Your task to perform on an android device: Toggle the flashlight Image 0: 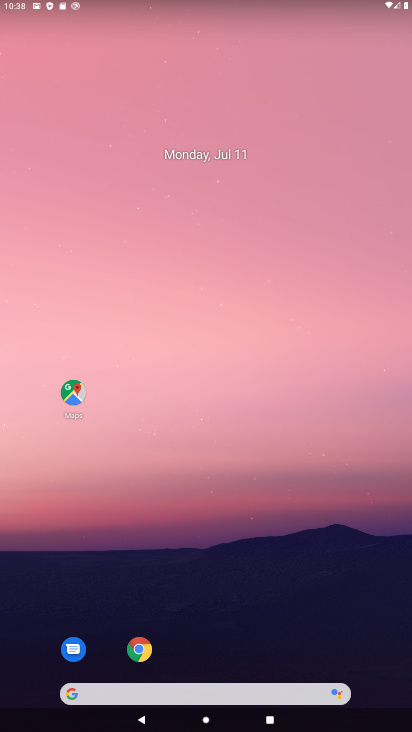
Step 0: drag from (189, 530) to (203, 123)
Your task to perform on an android device: Toggle the flashlight Image 1: 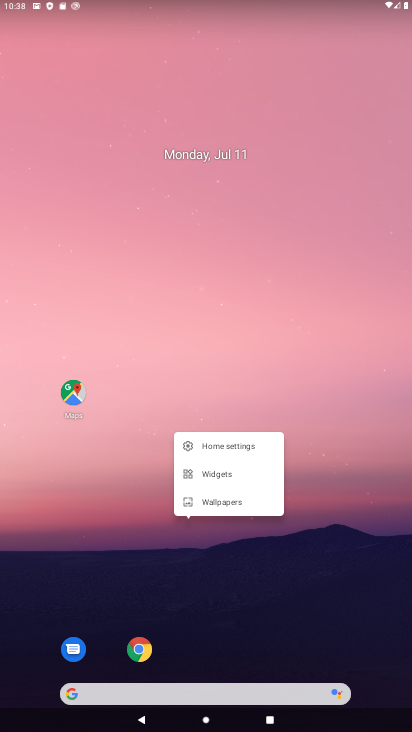
Step 1: click (277, 543)
Your task to perform on an android device: Toggle the flashlight Image 2: 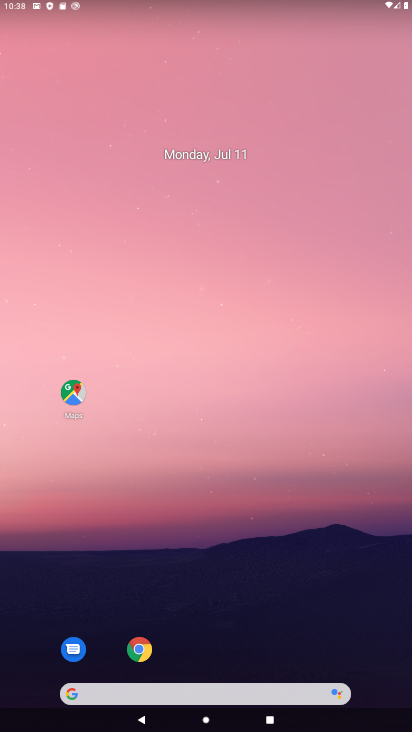
Step 2: drag from (277, 543) to (283, 1)
Your task to perform on an android device: Toggle the flashlight Image 3: 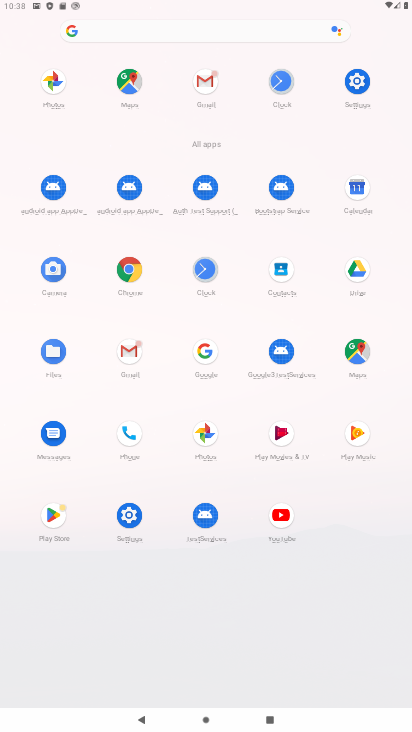
Step 3: click (352, 86)
Your task to perform on an android device: Toggle the flashlight Image 4: 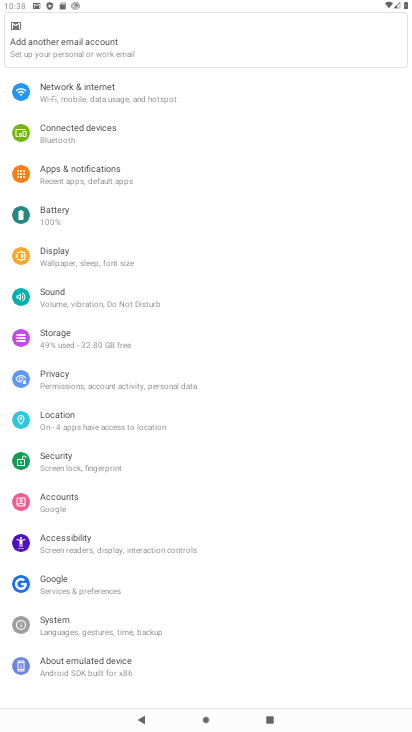
Step 4: task complete